Your task to perform on an android device: turn notification dots off Image 0: 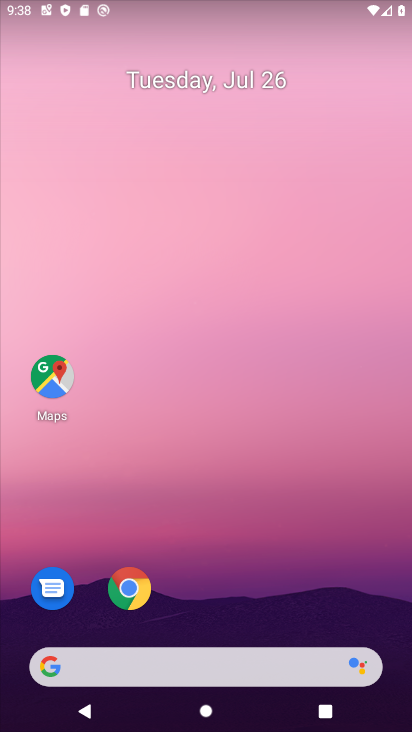
Step 0: drag from (165, 668) to (293, 50)
Your task to perform on an android device: turn notification dots off Image 1: 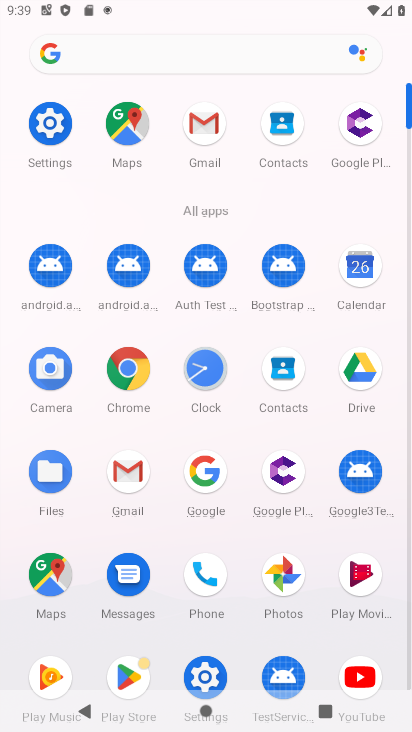
Step 1: click (50, 123)
Your task to perform on an android device: turn notification dots off Image 2: 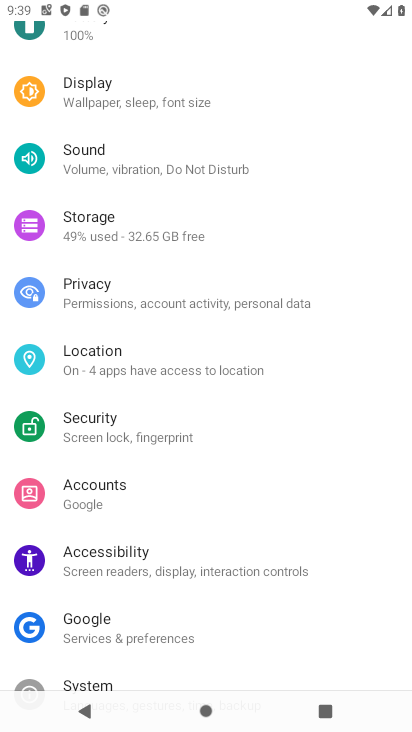
Step 2: drag from (156, 157) to (141, 419)
Your task to perform on an android device: turn notification dots off Image 3: 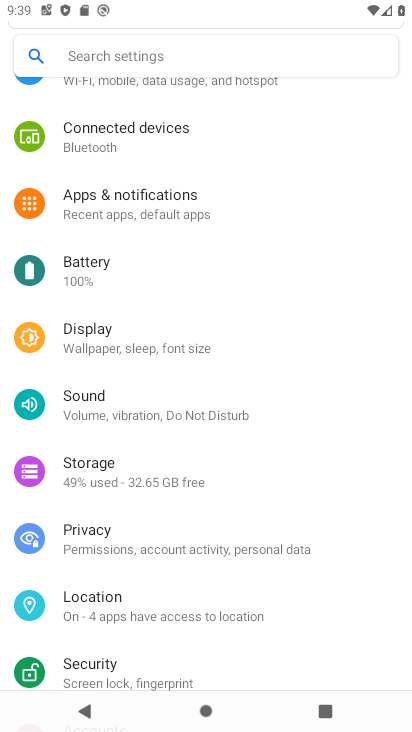
Step 3: click (177, 208)
Your task to perform on an android device: turn notification dots off Image 4: 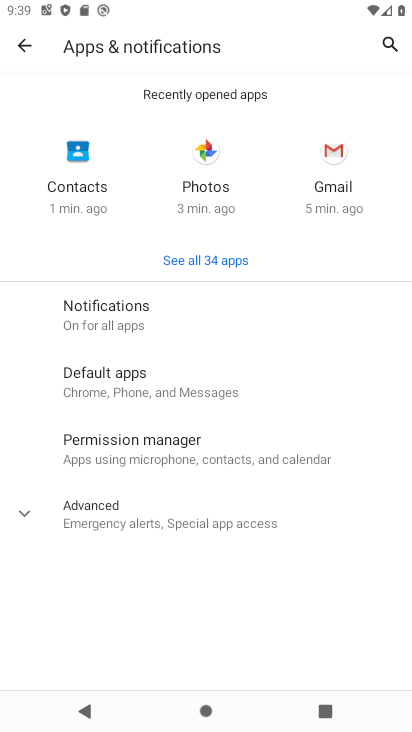
Step 4: click (139, 310)
Your task to perform on an android device: turn notification dots off Image 5: 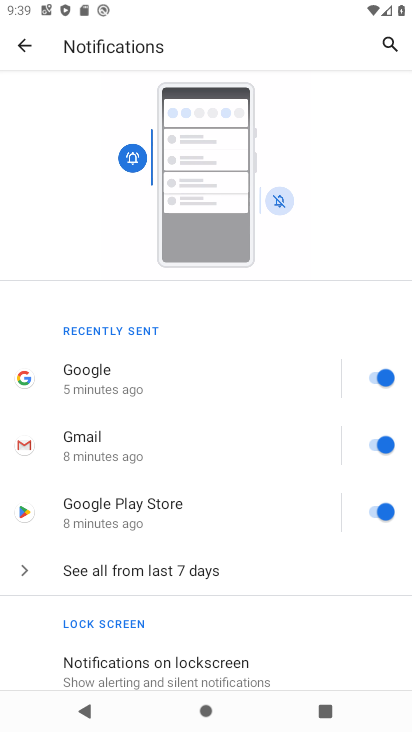
Step 5: drag from (183, 627) to (245, 352)
Your task to perform on an android device: turn notification dots off Image 6: 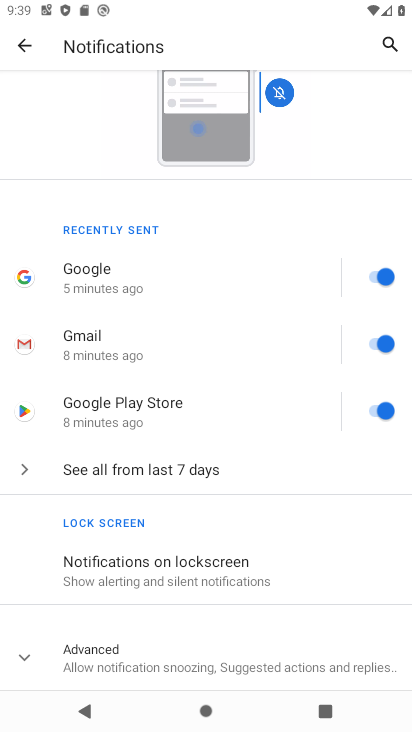
Step 6: click (179, 670)
Your task to perform on an android device: turn notification dots off Image 7: 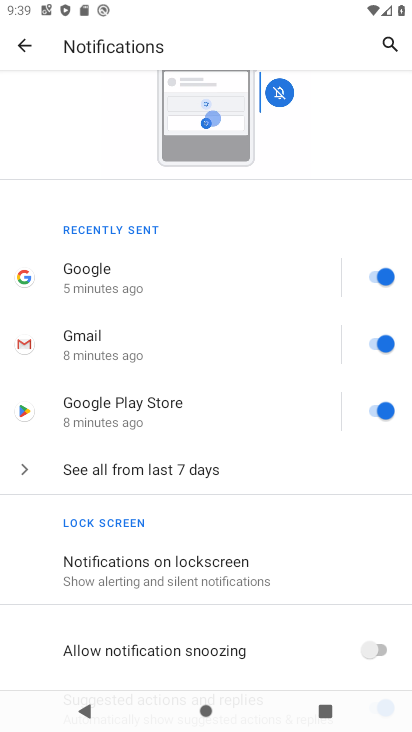
Step 7: drag from (191, 640) to (238, 467)
Your task to perform on an android device: turn notification dots off Image 8: 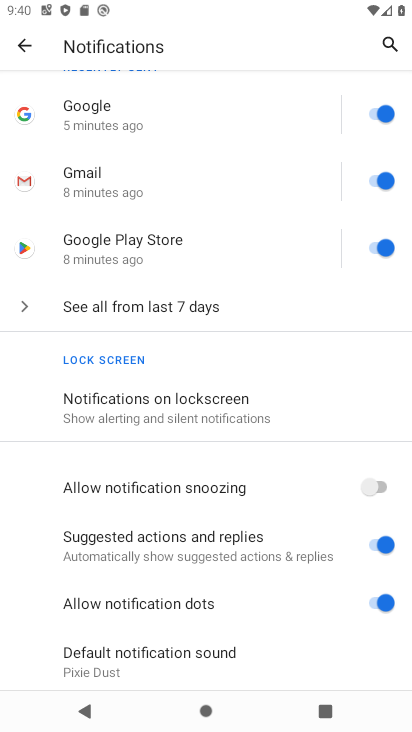
Step 8: click (384, 599)
Your task to perform on an android device: turn notification dots off Image 9: 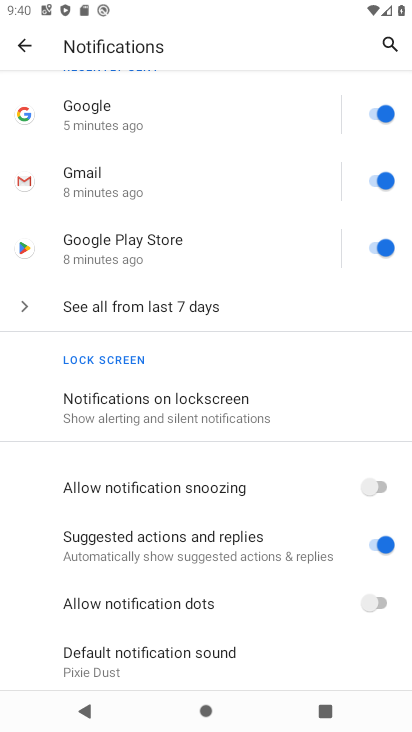
Step 9: task complete